Your task to perform on an android device: Go to CNN.com Image 0: 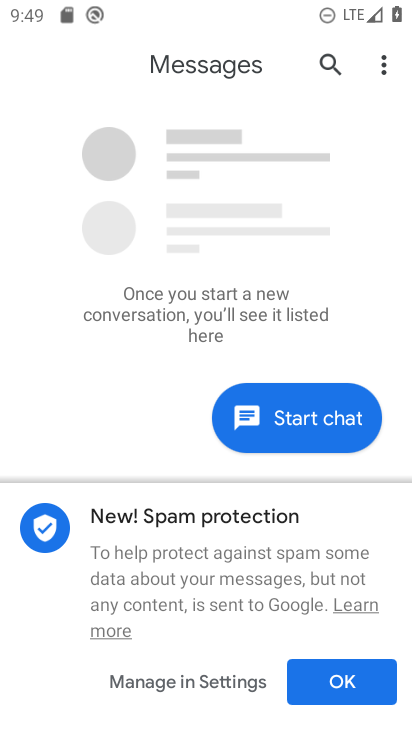
Step 0: press home button
Your task to perform on an android device: Go to CNN.com Image 1: 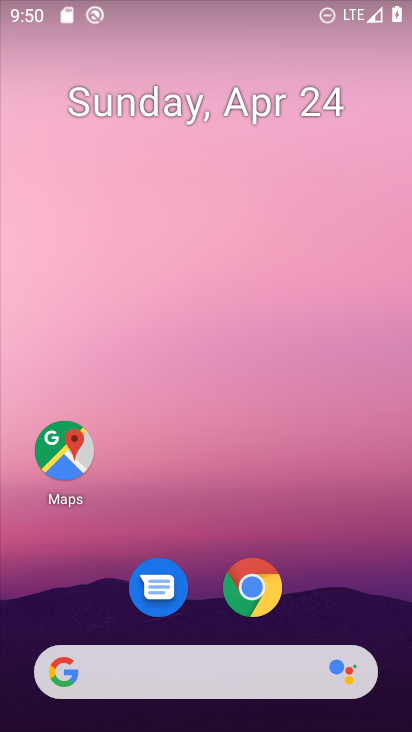
Step 1: drag from (361, 567) to (365, 110)
Your task to perform on an android device: Go to CNN.com Image 2: 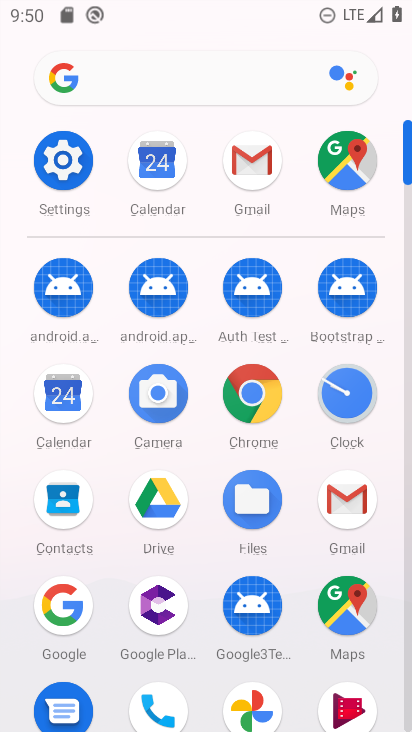
Step 2: click (263, 416)
Your task to perform on an android device: Go to CNN.com Image 3: 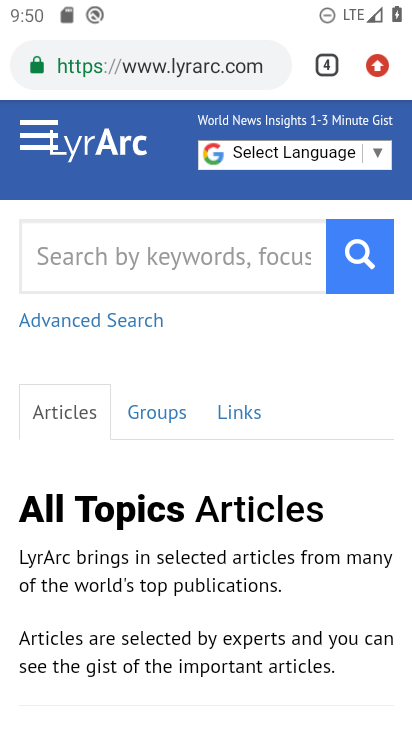
Step 3: click (146, 70)
Your task to perform on an android device: Go to CNN.com Image 4: 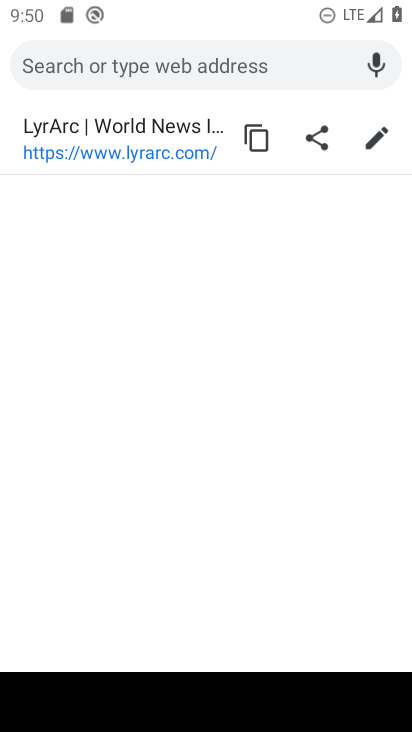
Step 4: type "cnn.com"
Your task to perform on an android device: Go to CNN.com Image 5: 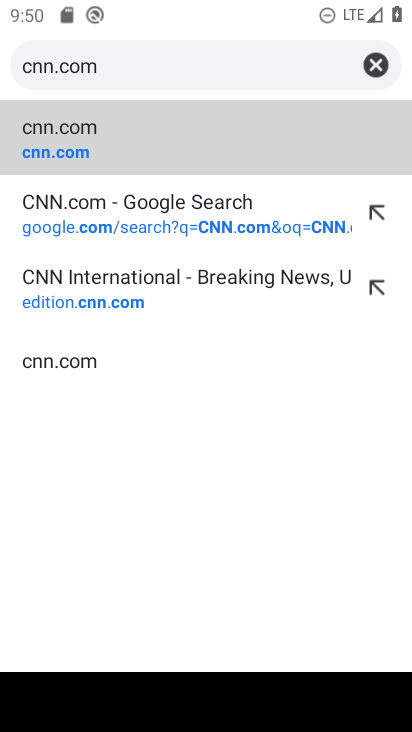
Step 5: click (73, 150)
Your task to perform on an android device: Go to CNN.com Image 6: 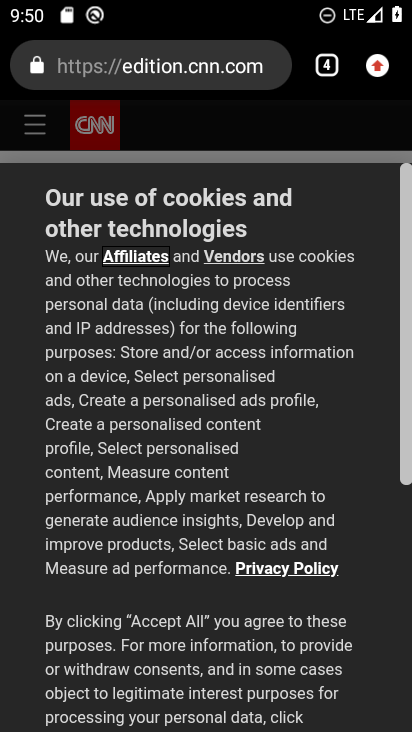
Step 6: task complete